Your task to perform on an android device: turn on javascript in the chrome app Image 0: 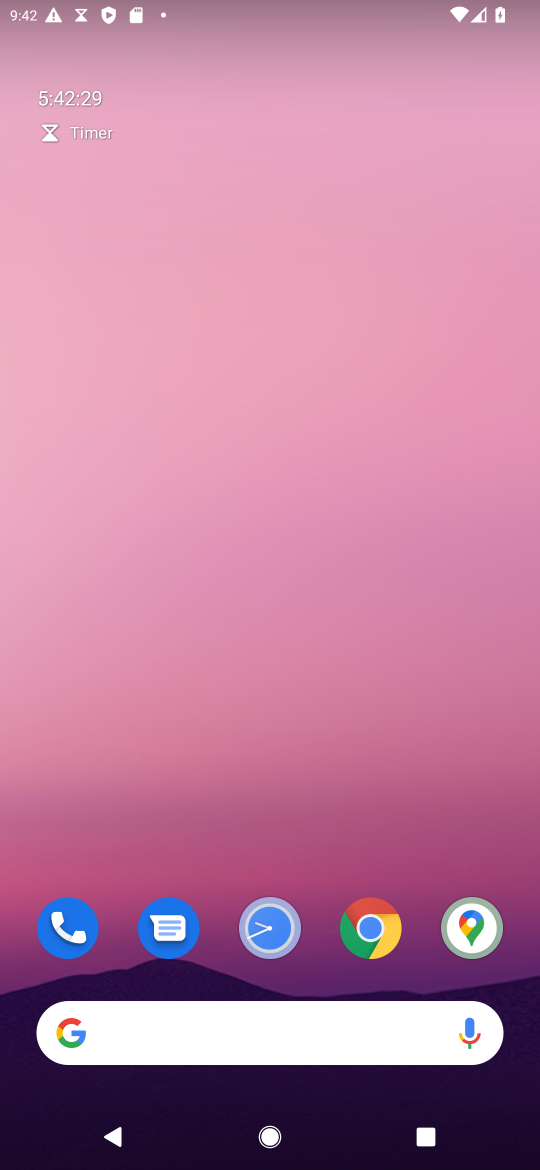
Step 0: press home button
Your task to perform on an android device: turn on javascript in the chrome app Image 1: 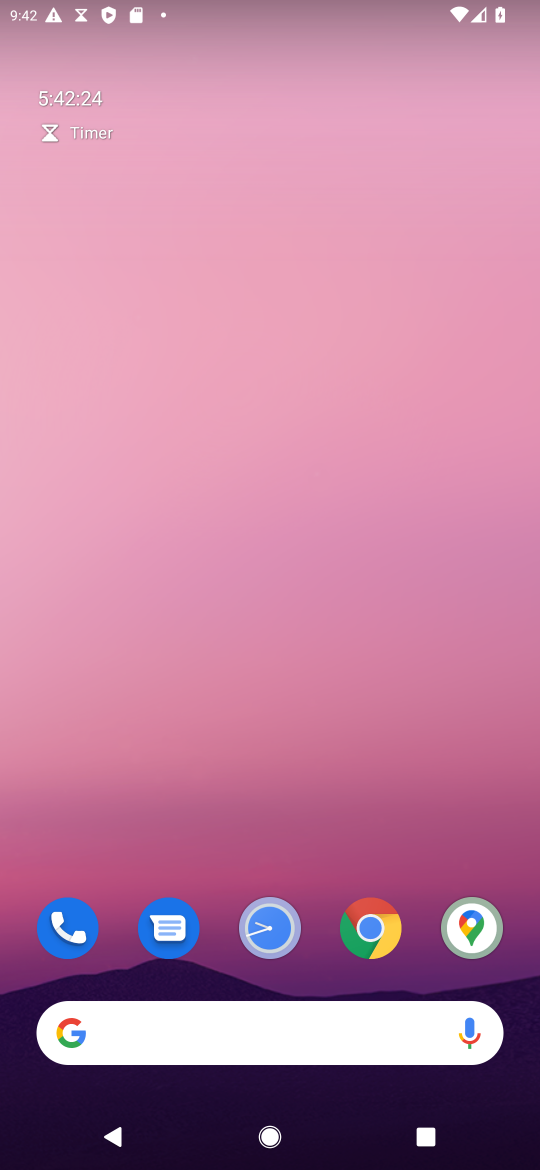
Step 1: click (372, 921)
Your task to perform on an android device: turn on javascript in the chrome app Image 2: 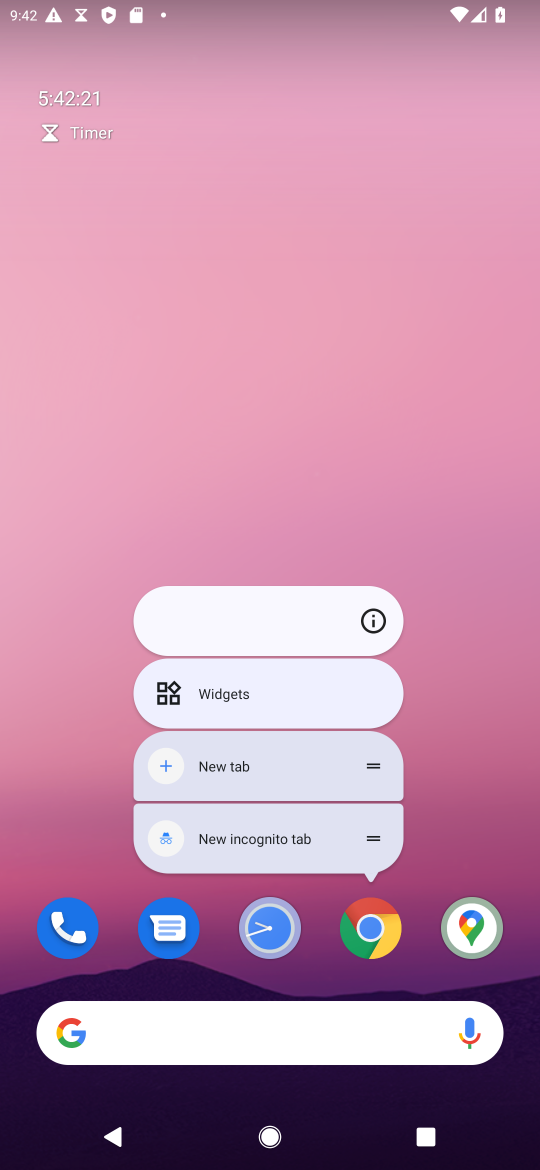
Step 2: click (372, 921)
Your task to perform on an android device: turn on javascript in the chrome app Image 3: 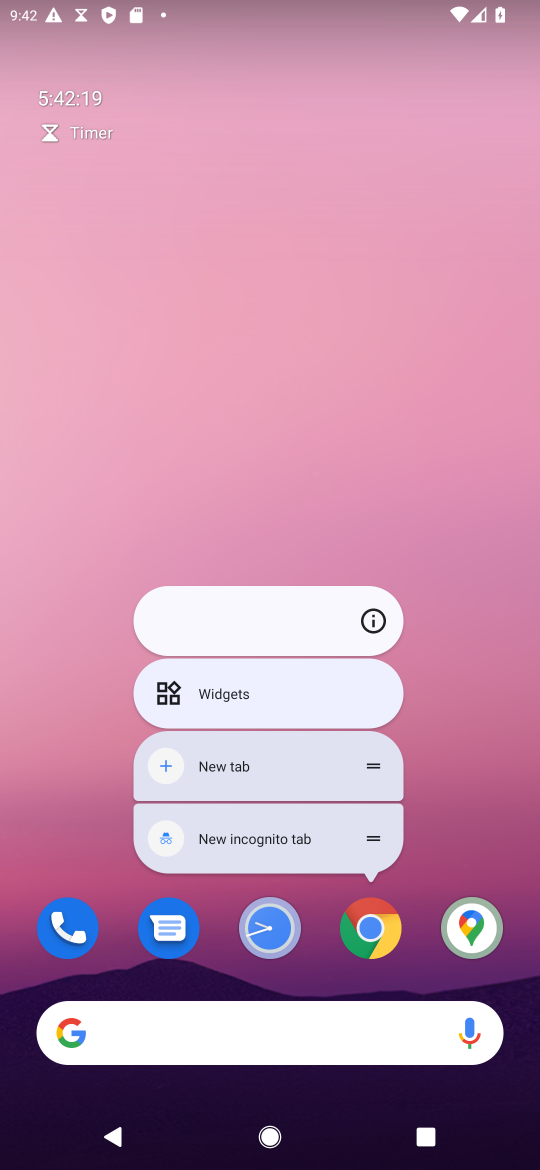
Step 3: click (372, 921)
Your task to perform on an android device: turn on javascript in the chrome app Image 4: 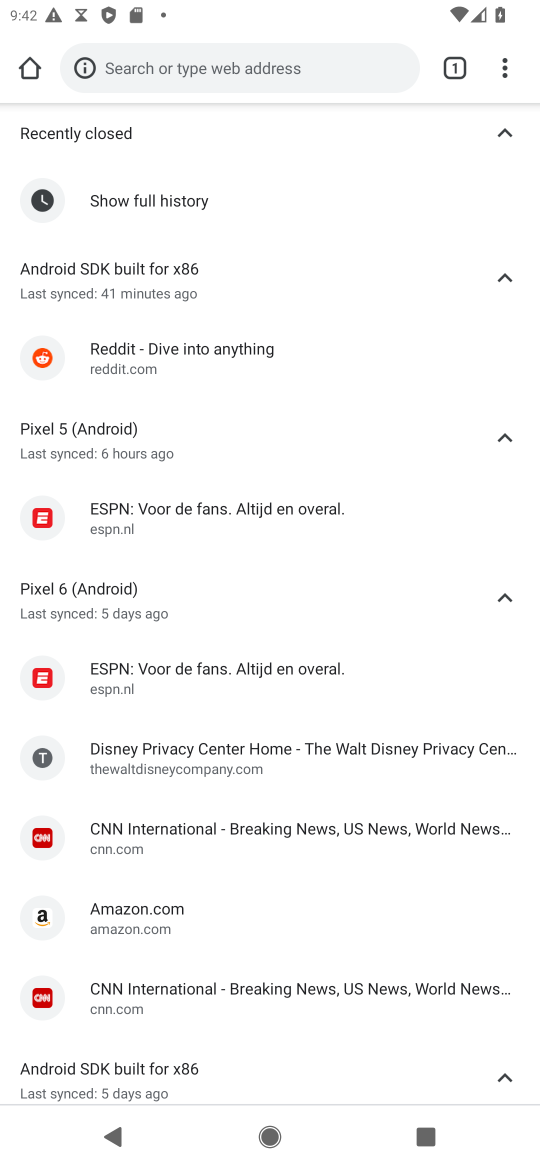
Step 4: drag from (506, 62) to (311, 660)
Your task to perform on an android device: turn on javascript in the chrome app Image 5: 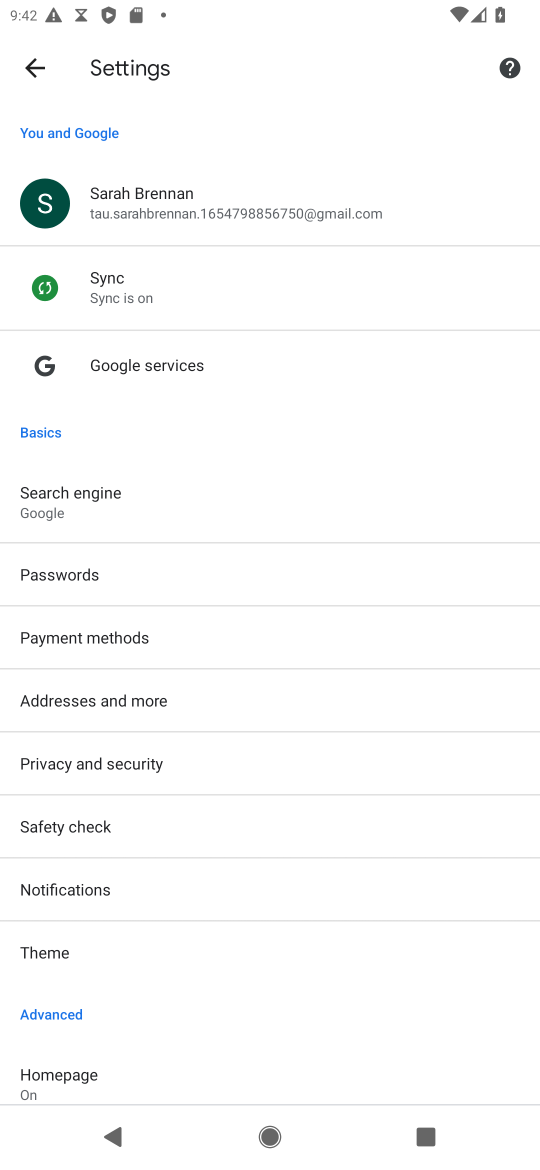
Step 5: drag from (102, 1014) to (201, 559)
Your task to perform on an android device: turn on javascript in the chrome app Image 6: 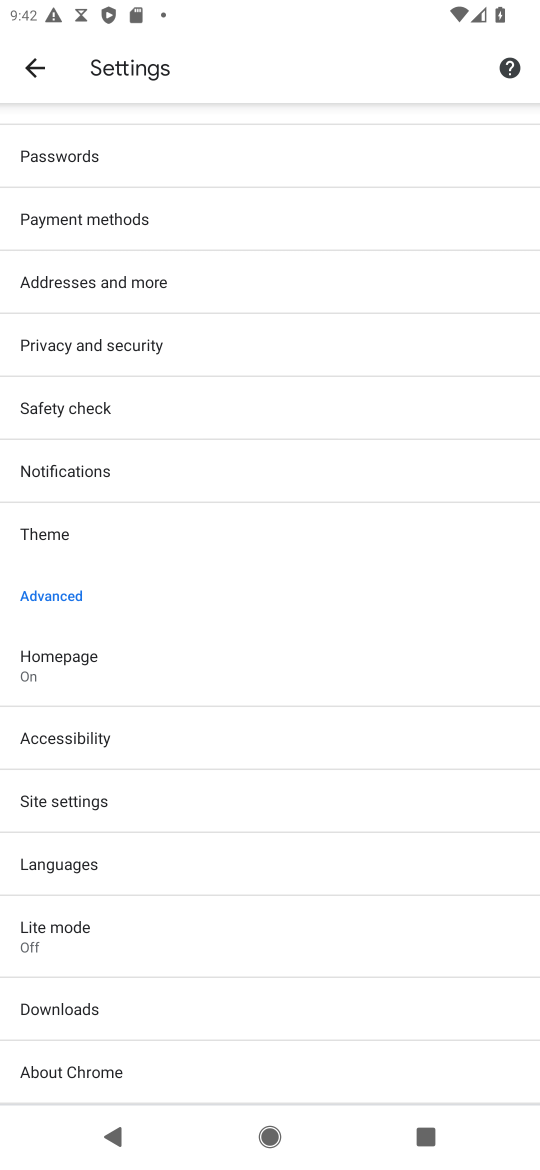
Step 6: click (74, 807)
Your task to perform on an android device: turn on javascript in the chrome app Image 7: 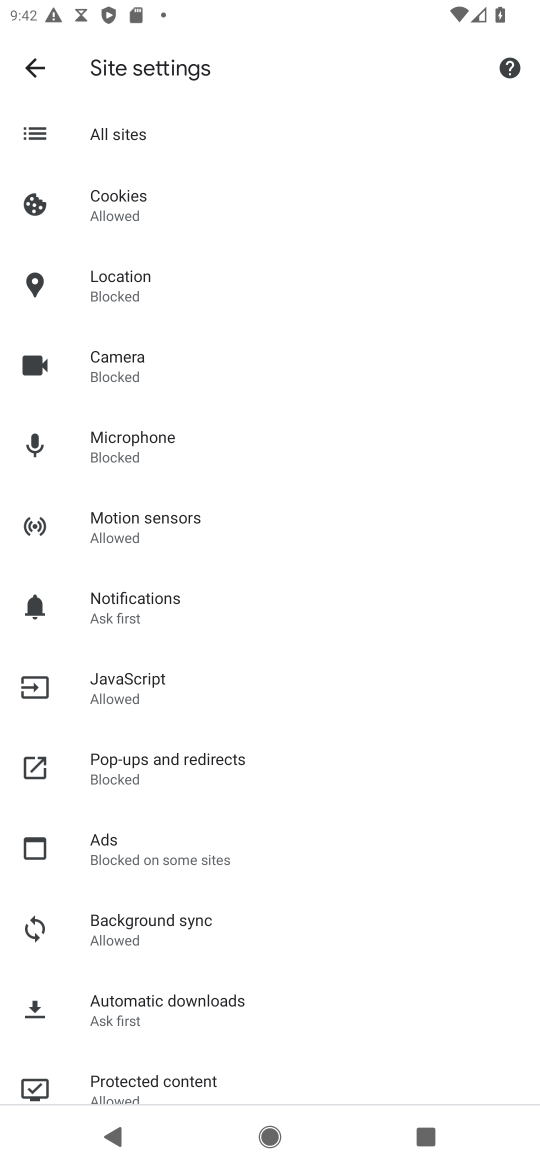
Step 7: click (125, 696)
Your task to perform on an android device: turn on javascript in the chrome app Image 8: 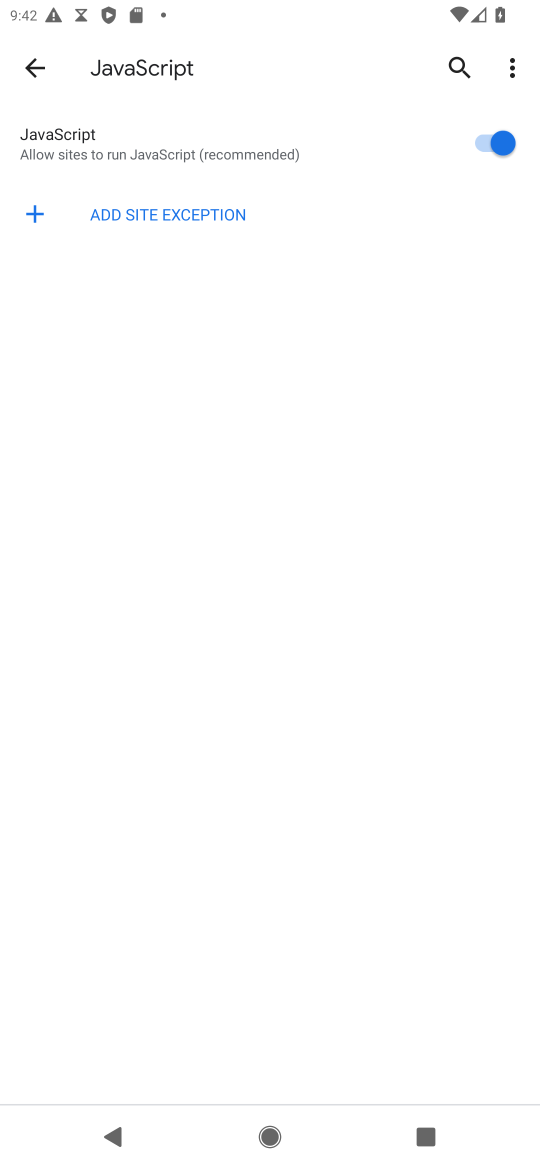
Step 8: task complete